Your task to perform on an android device: Open calendar and show me the first week of next month Image 0: 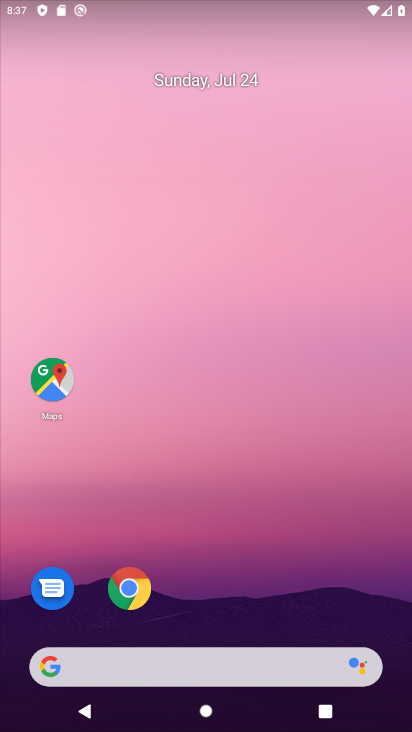
Step 0: drag from (388, 663) to (329, 100)
Your task to perform on an android device: Open calendar and show me the first week of next month Image 1: 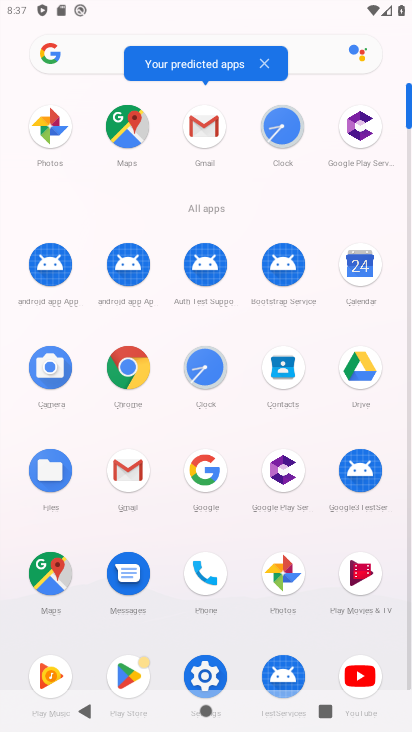
Step 1: click (348, 263)
Your task to perform on an android device: Open calendar and show me the first week of next month Image 2: 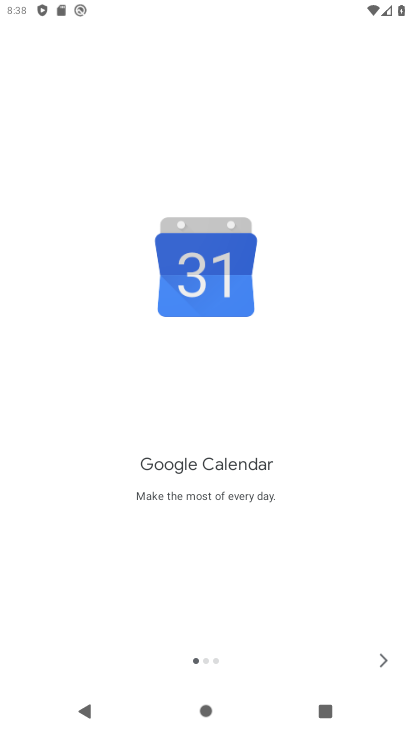
Step 2: click (374, 660)
Your task to perform on an android device: Open calendar and show me the first week of next month Image 3: 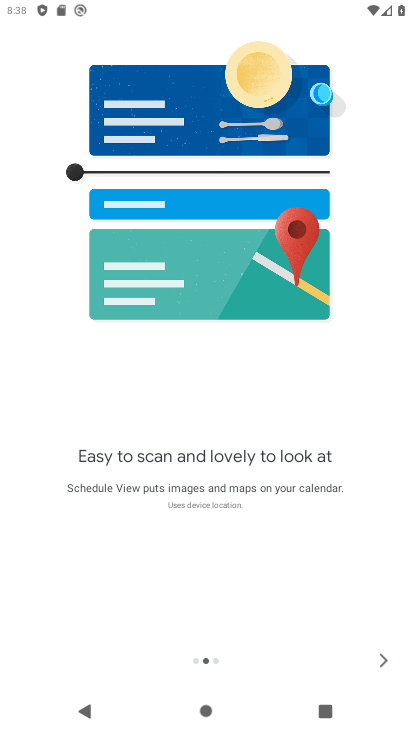
Step 3: click (381, 660)
Your task to perform on an android device: Open calendar and show me the first week of next month Image 4: 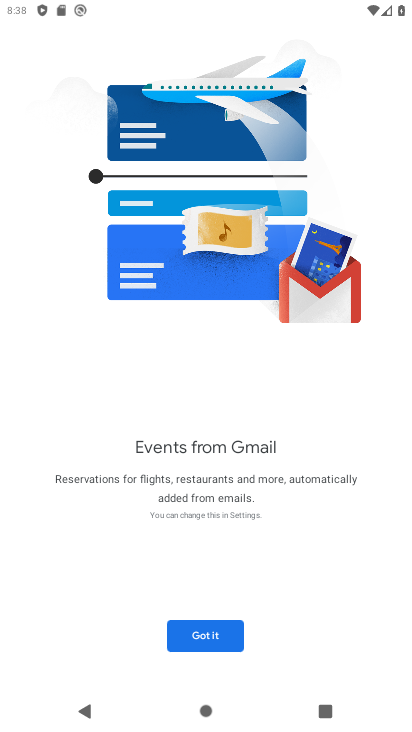
Step 4: click (386, 649)
Your task to perform on an android device: Open calendar and show me the first week of next month Image 5: 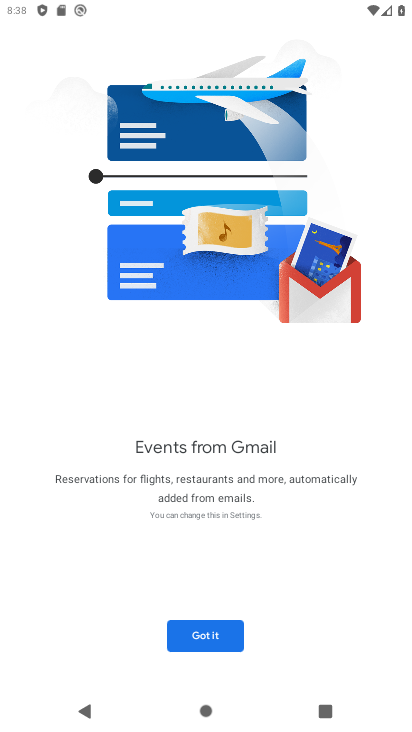
Step 5: click (203, 633)
Your task to perform on an android device: Open calendar and show me the first week of next month Image 6: 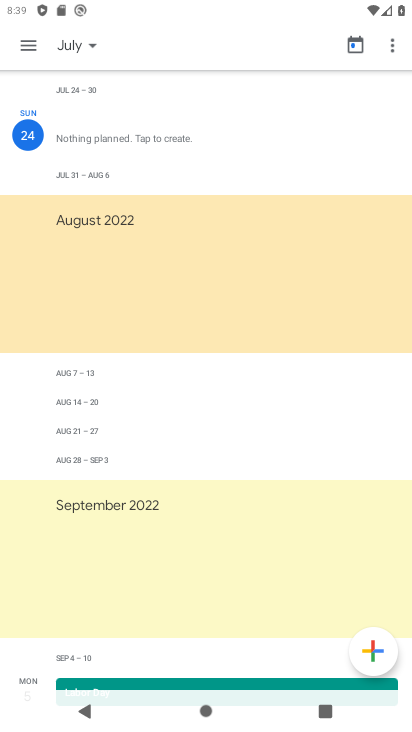
Step 6: press home button
Your task to perform on an android device: Open calendar and show me the first week of next month Image 7: 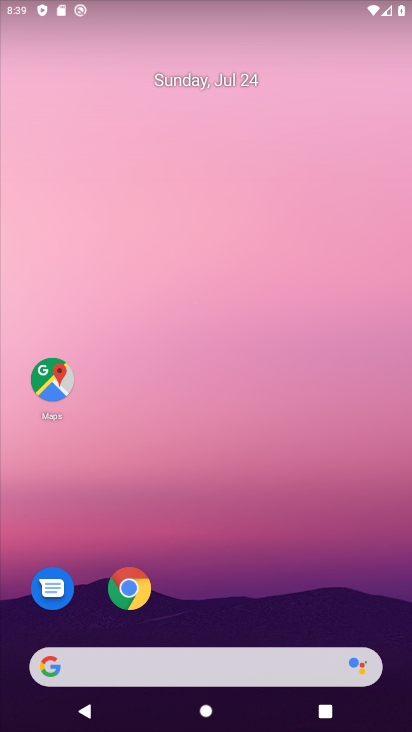
Step 7: drag from (379, 695) to (235, 72)
Your task to perform on an android device: Open calendar and show me the first week of next month Image 8: 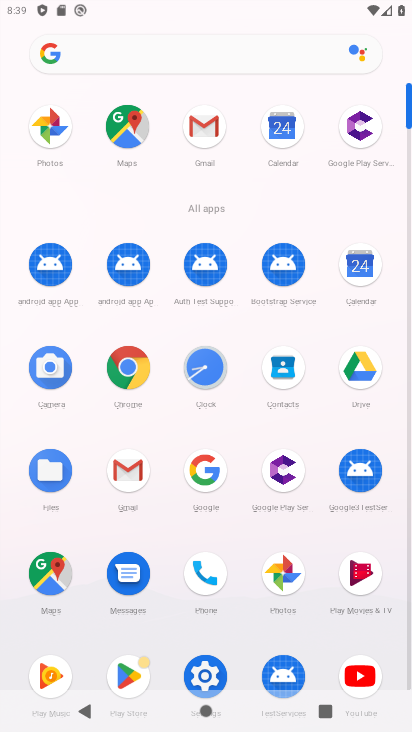
Step 8: click (354, 266)
Your task to perform on an android device: Open calendar and show me the first week of next month Image 9: 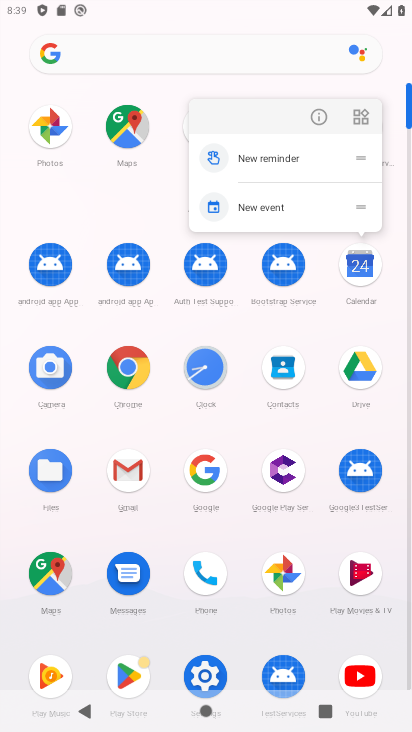
Step 9: click (357, 272)
Your task to perform on an android device: Open calendar and show me the first week of next month Image 10: 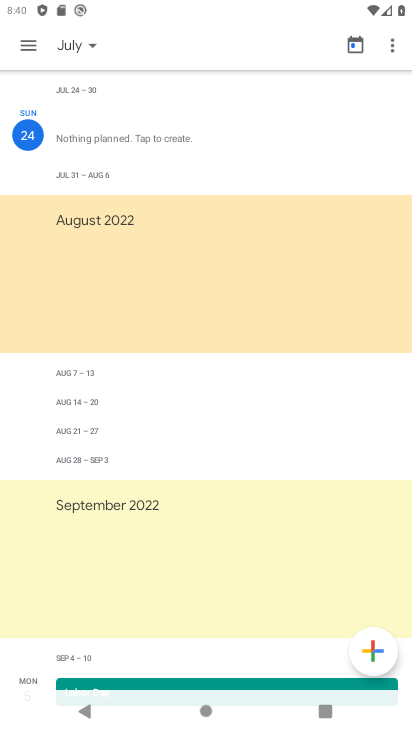
Step 10: click (97, 45)
Your task to perform on an android device: Open calendar and show me the first week of next month Image 11: 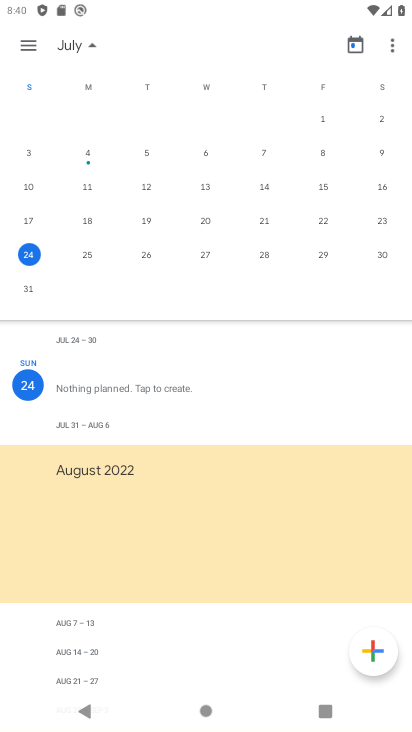
Step 11: drag from (391, 172) to (61, 152)
Your task to perform on an android device: Open calendar and show me the first week of next month Image 12: 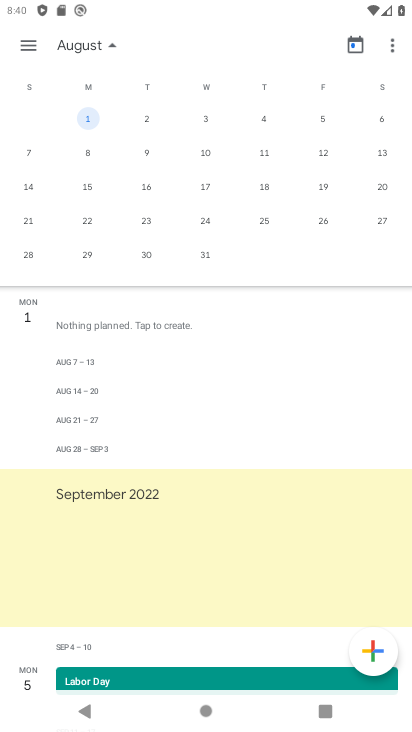
Step 12: click (262, 116)
Your task to perform on an android device: Open calendar and show me the first week of next month Image 13: 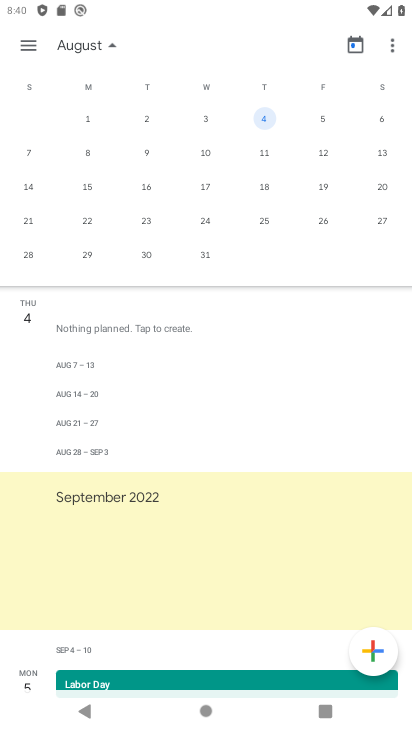
Step 13: task complete